Your task to perform on an android device: turn off priority inbox in the gmail app Image 0: 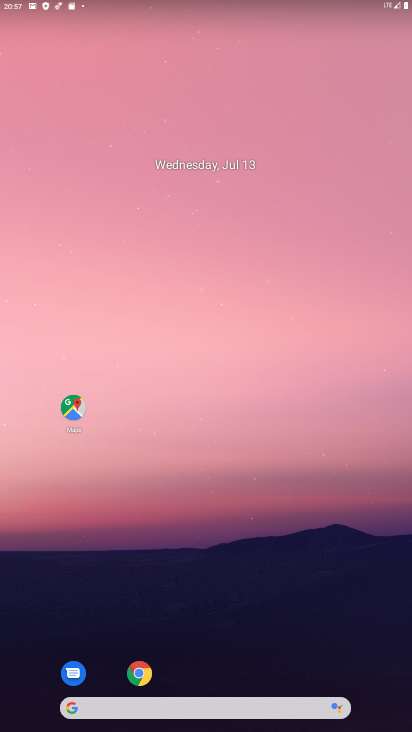
Step 0: drag from (270, 307) to (205, 440)
Your task to perform on an android device: turn off priority inbox in the gmail app Image 1: 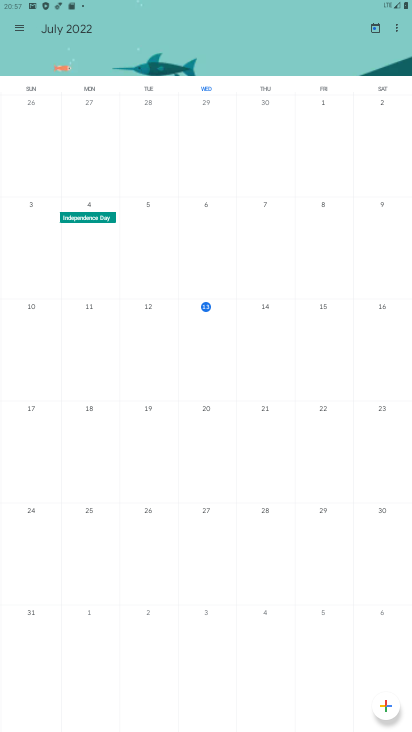
Step 1: press home button
Your task to perform on an android device: turn off priority inbox in the gmail app Image 2: 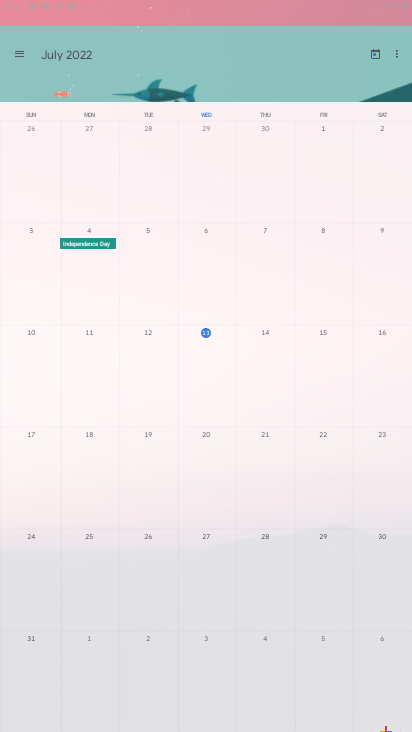
Step 2: drag from (222, 668) to (269, 370)
Your task to perform on an android device: turn off priority inbox in the gmail app Image 3: 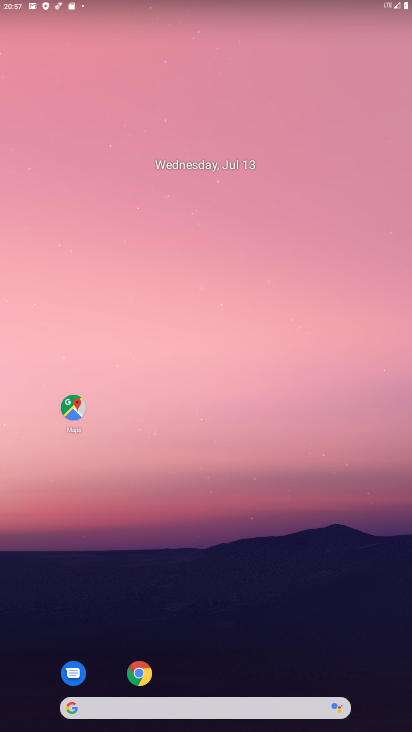
Step 3: drag from (185, 678) to (234, 333)
Your task to perform on an android device: turn off priority inbox in the gmail app Image 4: 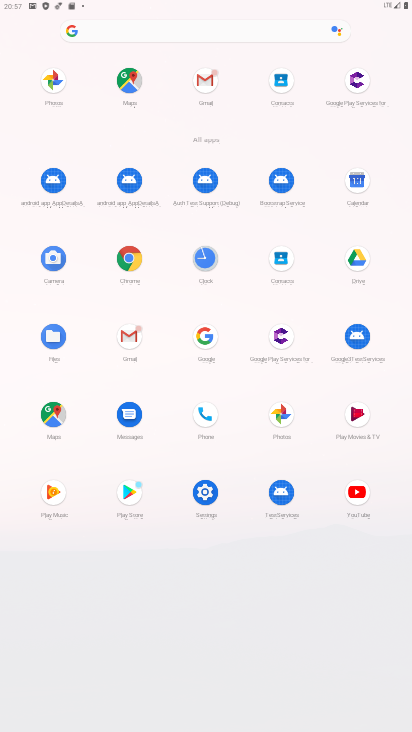
Step 4: drag from (220, 489) to (262, 320)
Your task to perform on an android device: turn off priority inbox in the gmail app Image 5: 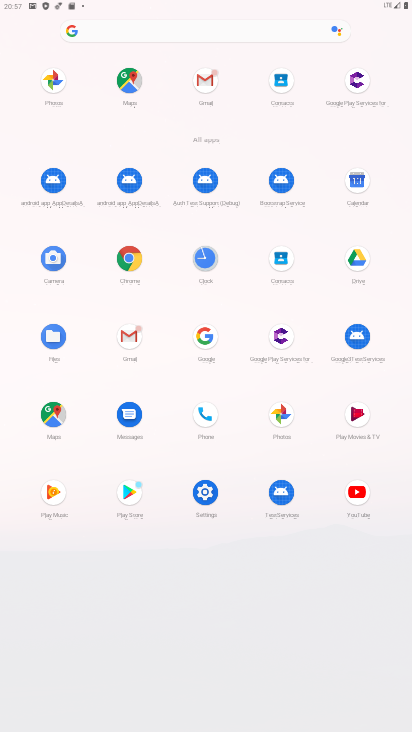
Step 5: click (124, 333)
Your task to perform on an android device: turn off priority inbox in the gmail app Image 6: 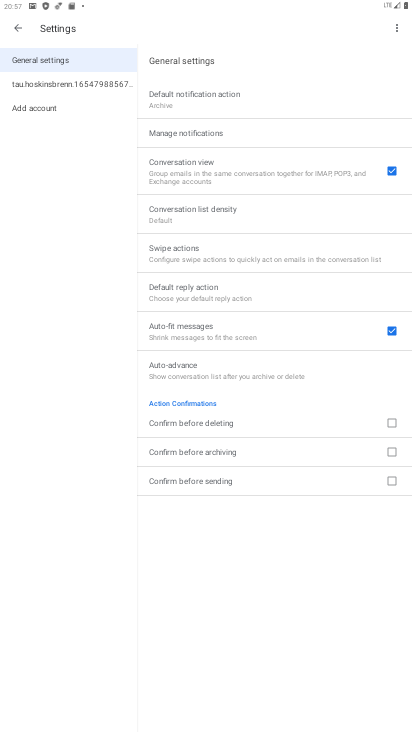
Step 6: drag from (197, 597) to (211, 332)
Your task to perform on an android device: turn off priority inbox in the gmail app Image 7: 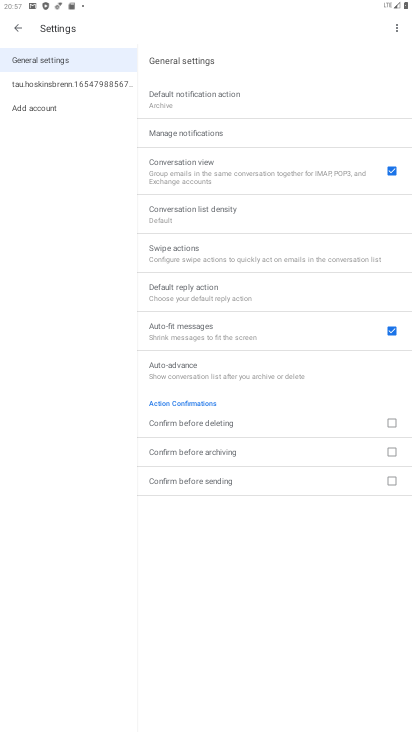
Step 7: click (13, 21)
Your task to perform on an android device: turn off priority inbox in the gmail app Image 8: 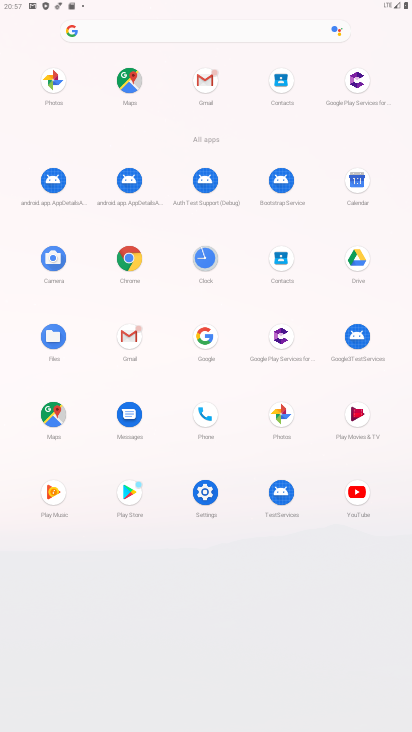
Step 8: click (130, 332)
Your task to perform on an android device: turn off priority inbox in the gmail app Image 9: 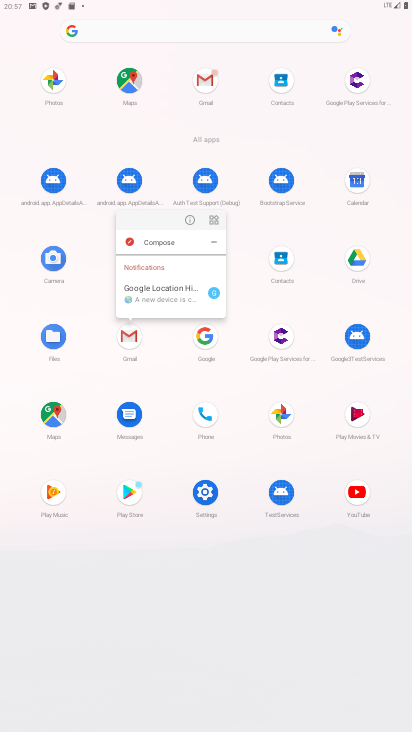
Step 9: click (191, 209)
Your task to perform on an android device: turn off priority inbox in the gmail app Image 10: 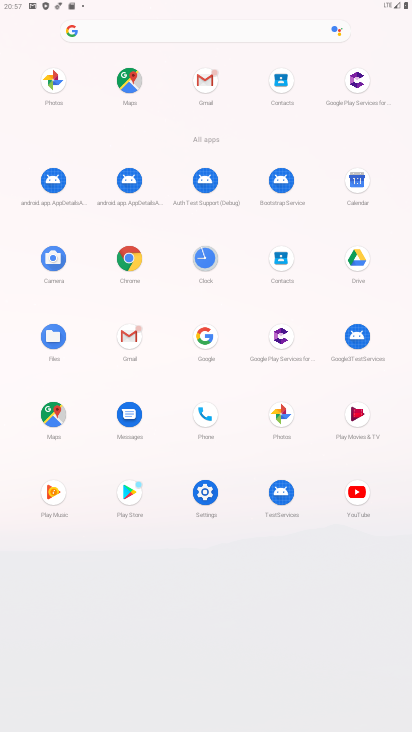
Step 10: click (133, 338)
Your task to perform on an android device: turn off priority inbox in the gmail app Image 11: 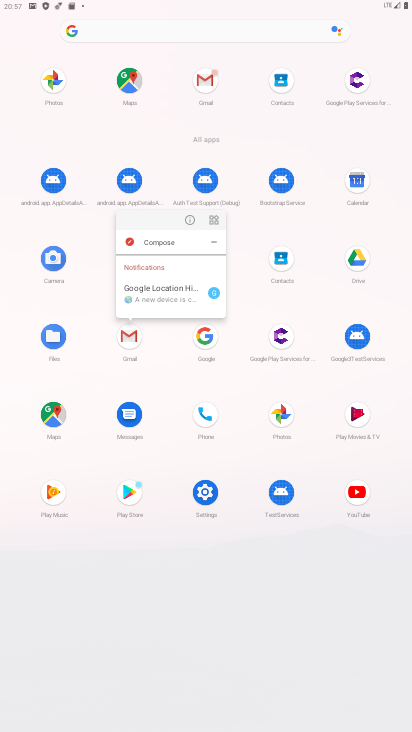
Step 11: click (189, 218)
Your task to perform on an android device: turn off priority inbox in the gmail app Image 12: 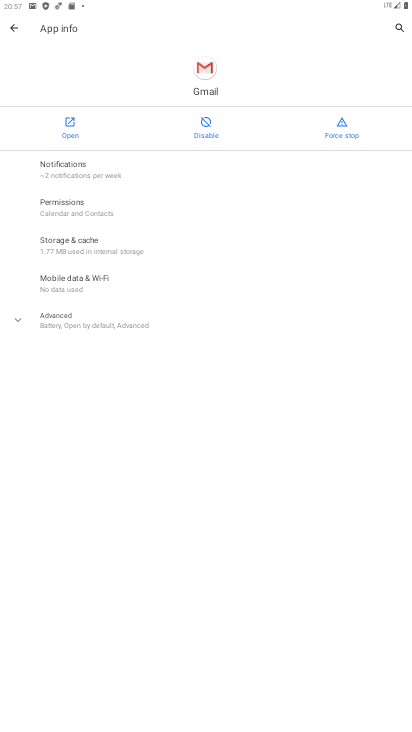
Step 12: click (64, 127)
Your task to perform on an android device: turn off priority inbox in the gmail app Image 13: 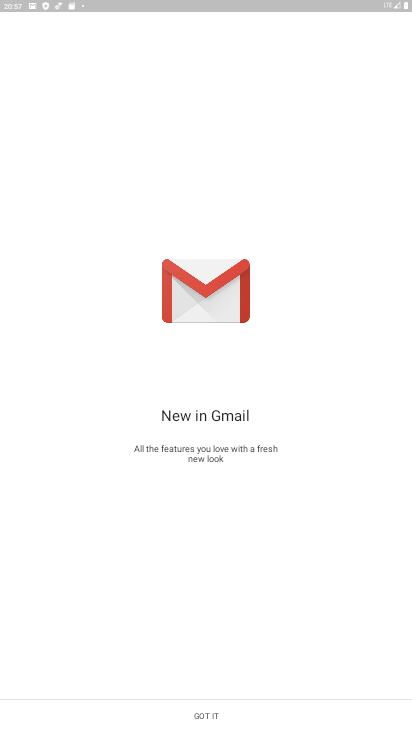
Step 13: drag from (186, 532) to (212, 294)
Your task to perform on an android device: turn off priority inbox in the gmail app Image 14: 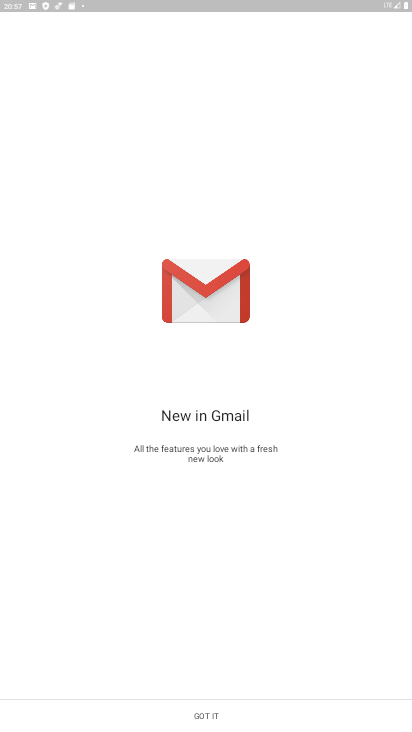
Step 14: click (198, 721)
Your task to perform on an android device: turn off priority inbox in the gmail app Image 15: 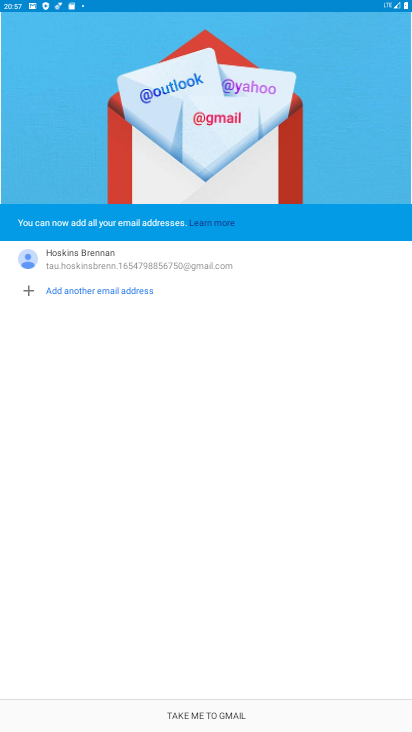
Step 15: click (201, 721)
Your task to perform on an android device: turn off priority inbox in the gmail app Image 16: 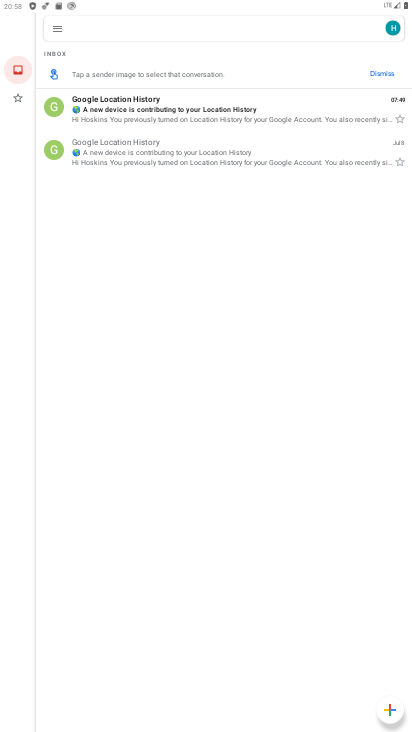
Step 16: click (59, 26)
Your task to perform on an android device: turn off priority inbox in the gmail app Image 17: 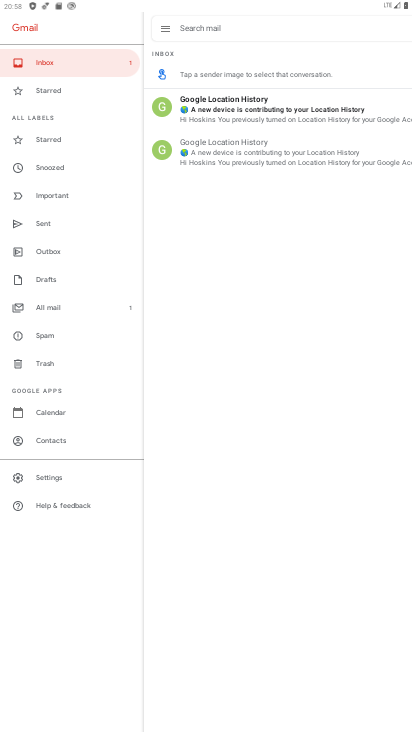
Step 17: click (42, 477)
Your task to perform on an android device: turn off priority inbox in the gmail app Image 18: 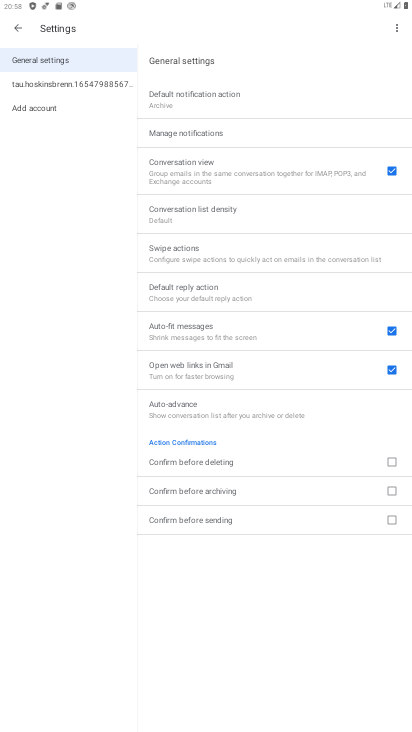
Step 18: click (54, 82)
Your task to perform on an android device: turn off priority inbox in the gmail app Image 19: 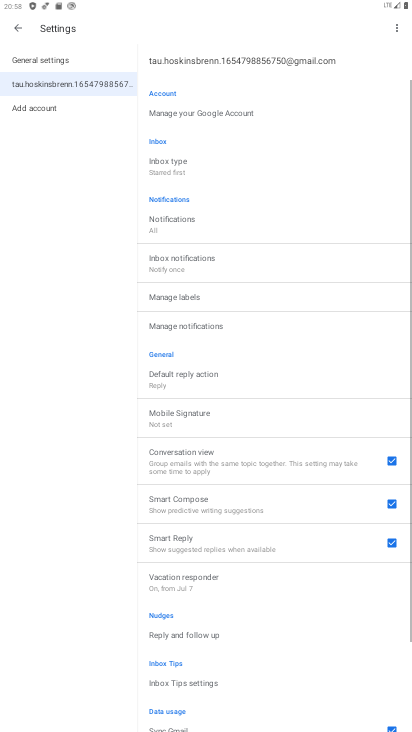
Step 19: click (197, 171)
Your task to perform on an android device: turn off priority inbox in the gmail app Image 20: 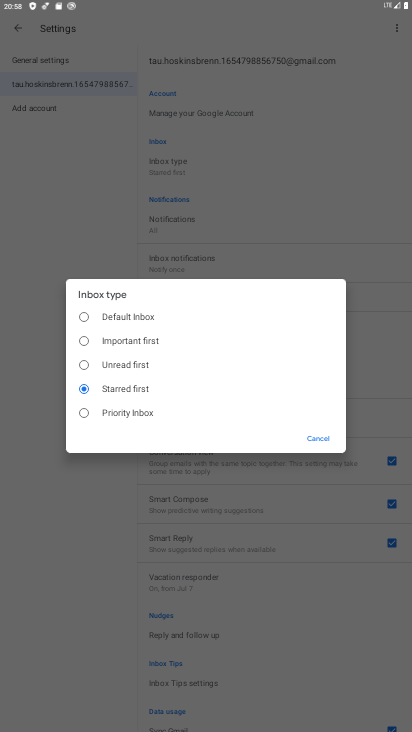
Step 20: click (108, 313)
Your task to perform on an android device: turn off priority inbox in the gmail app Image 21: 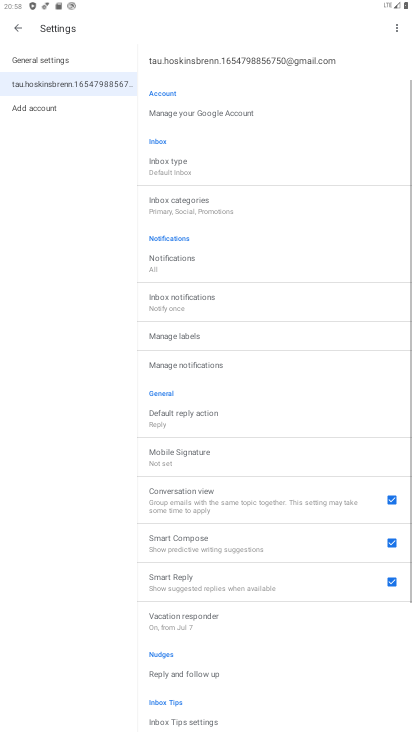
Step 21: task complete